Your task to perform on an android device: Go to Android settings Image 0: 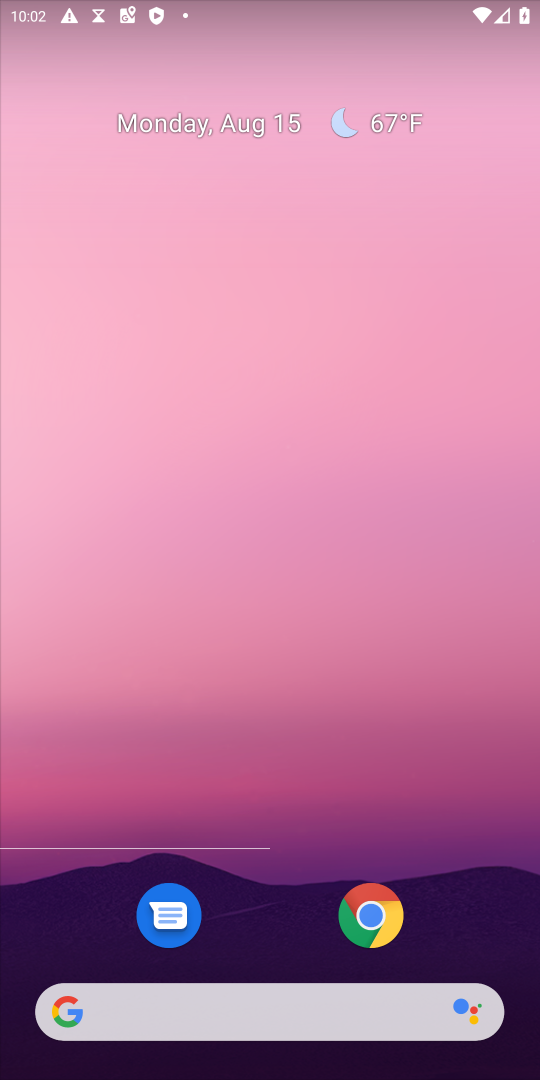
Step 0: press home button
Your task to perform on an android device: Go to Android settings Image 1: 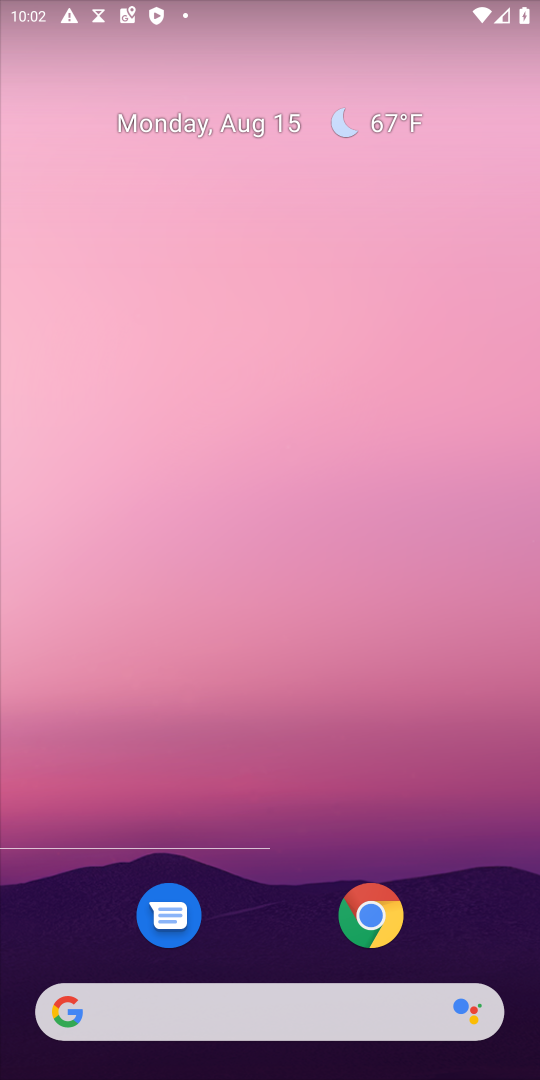
Step 1: drag from (249, 911) to (258, 129)
Your task to perform on an android device: Go to Android settings Image 2: 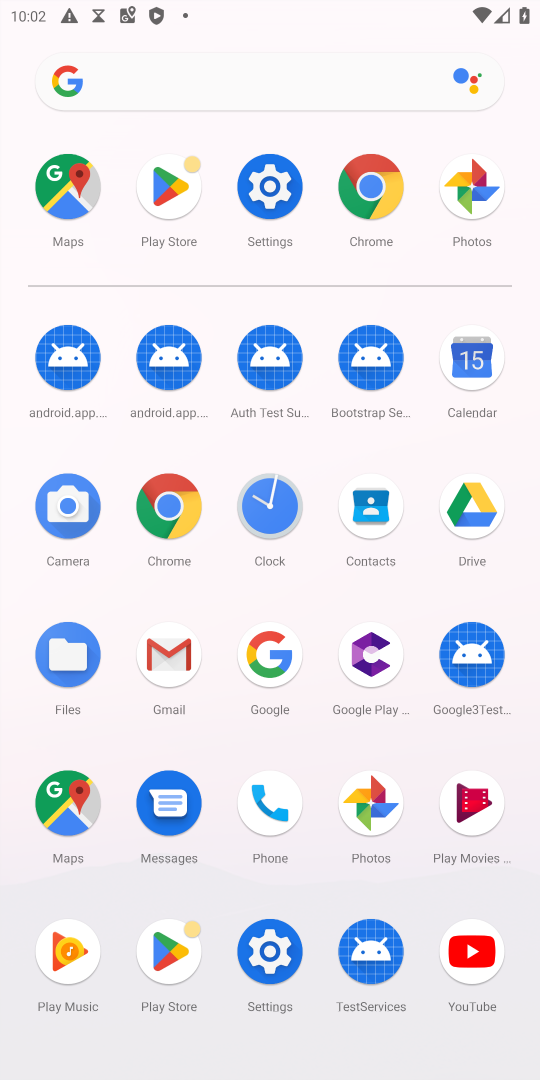
Step 2: click (276, 953)
Your task to perform on an android device: Go to Android settings Image 3: 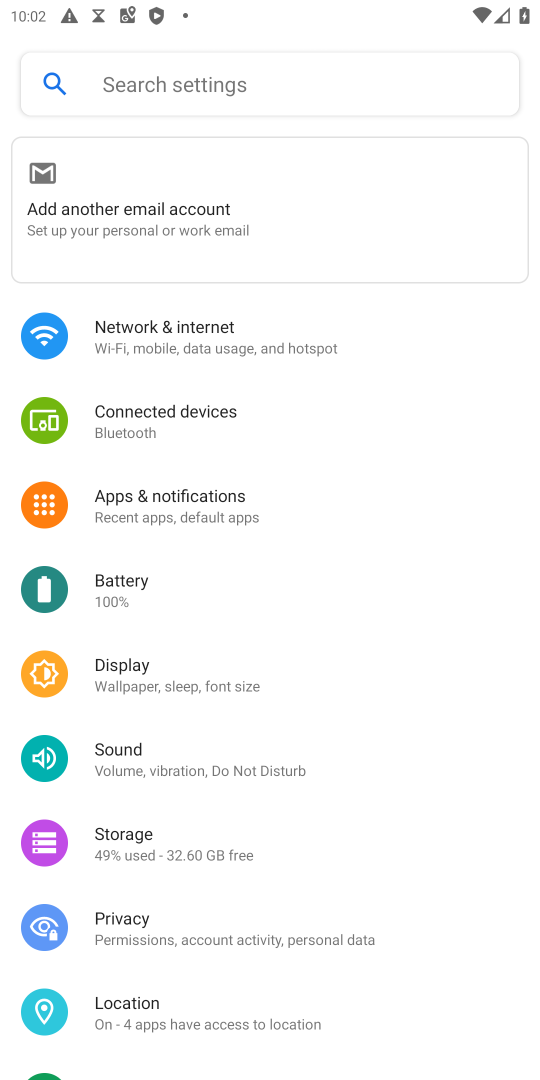
Step 3: task complete